Your task to perform on an android device: Open battery settings Image 0: 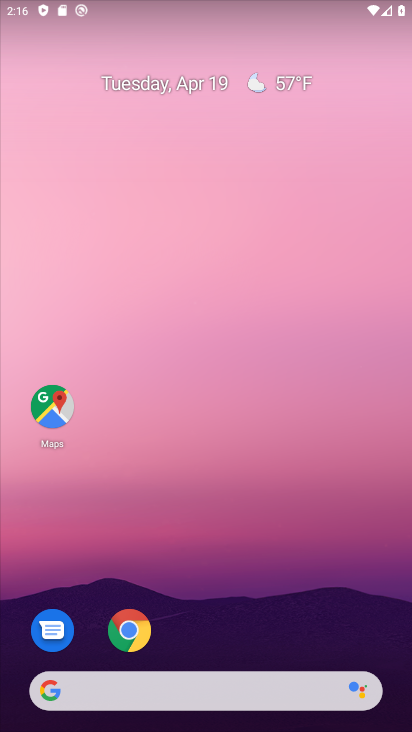
Step 0: drag from (207, 589) to (216, 150)
Your task to perform on an android device: Open battery settings Image 1: 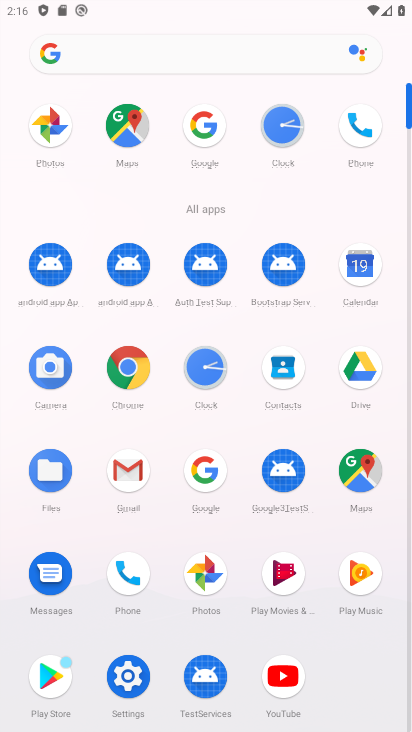
Step 1: click (127, 673)
Your task to perform on an android device: Open battery settings Image 2: 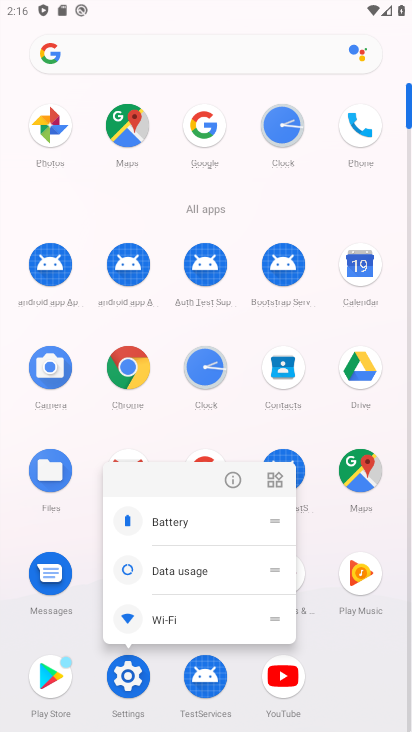
Step 2: click (126, 681)
Your task to perform on an android device: Open battery settings Image 3: 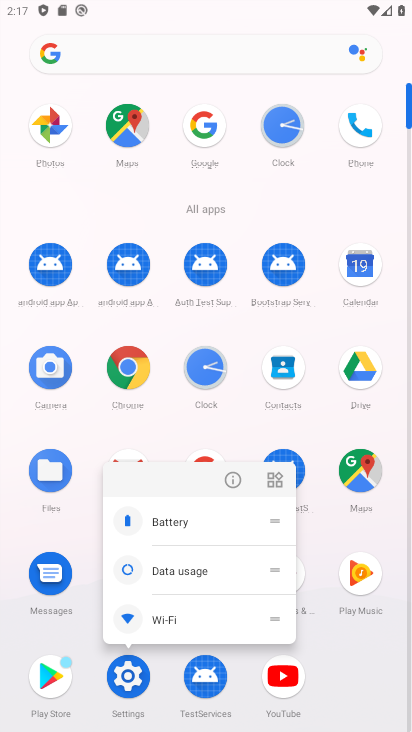
Step 3: click (142, 674)
Your task to perform on an android device: Open battery settings Image 4: 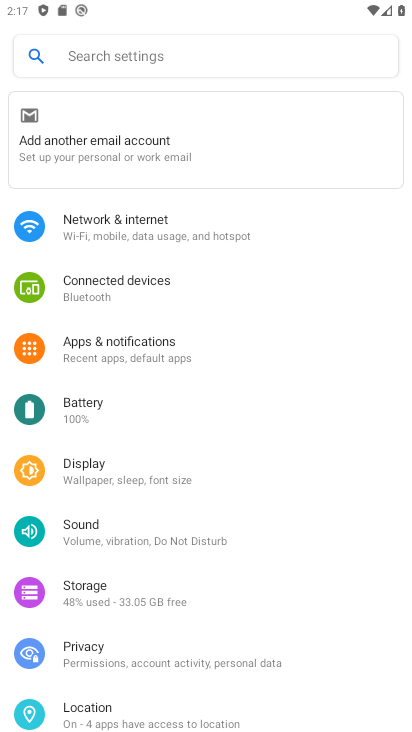
Step 4: click (111, 403)
Your task to perform on an android device: Open battery settings Image 5: 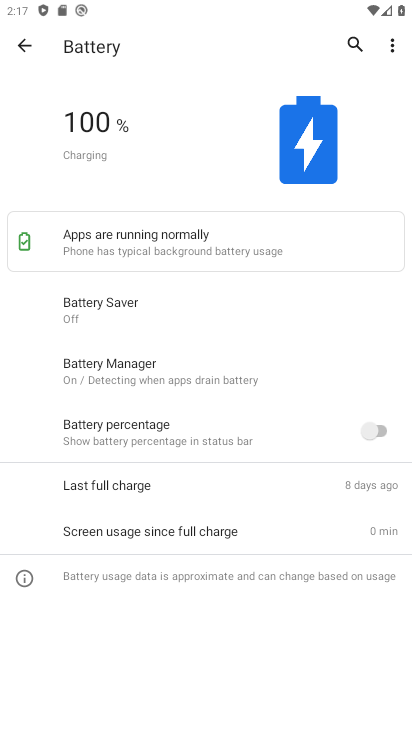
Step 5: task complete